Your task to perform on an android device: Open Chrome and go to the settings page Image 0: 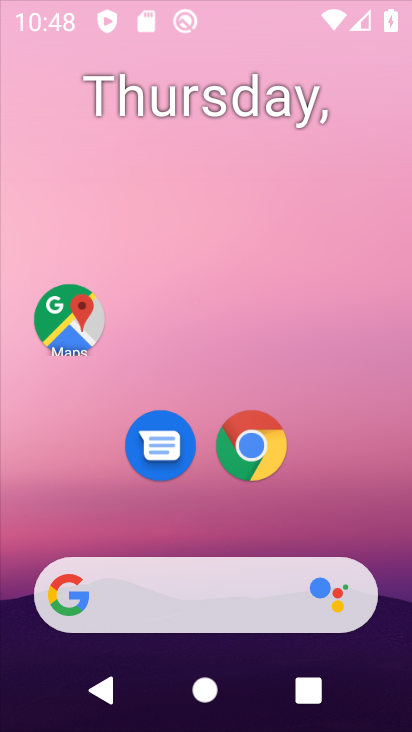
Step 0: press home button
Your task to perform on an android device: Open Chrome and go to the settings page Image 1: 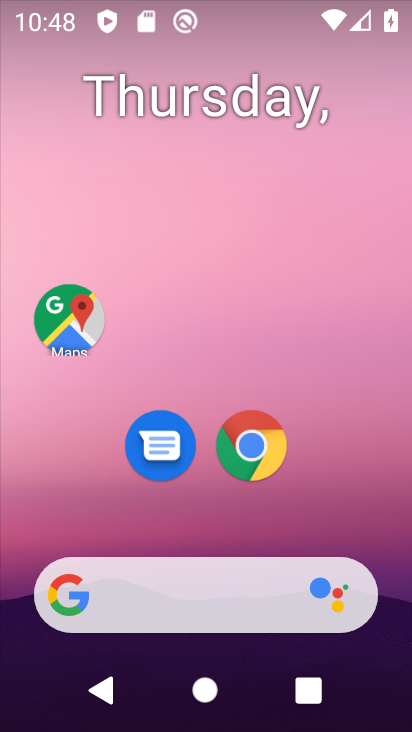
Step 1: drag from (169, 595) to (289, 188)
Your task to perform on an android device: Open Chrome and go to the settings page Image 2: 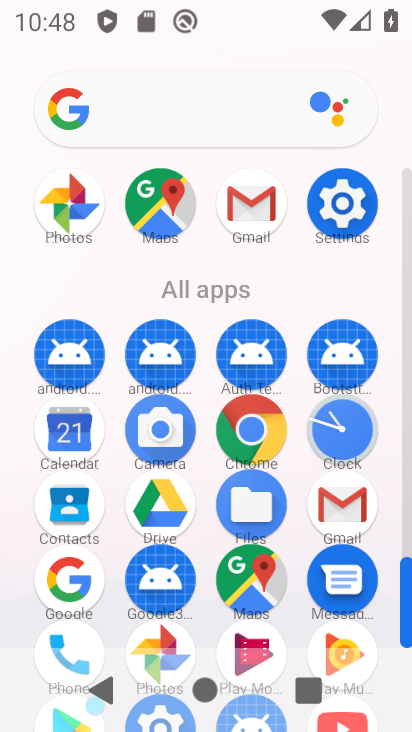
Step 2: click (260, 435)
Your task to perform on an android device: Open Chrome and go to the settings page Image 3: 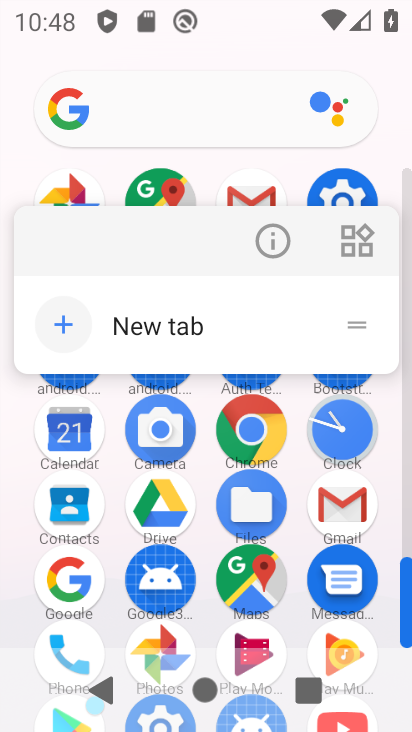
Step 3: click (254, 436)
Your task to perform on an android device: Open Chrome and go to the settings page Image 4: 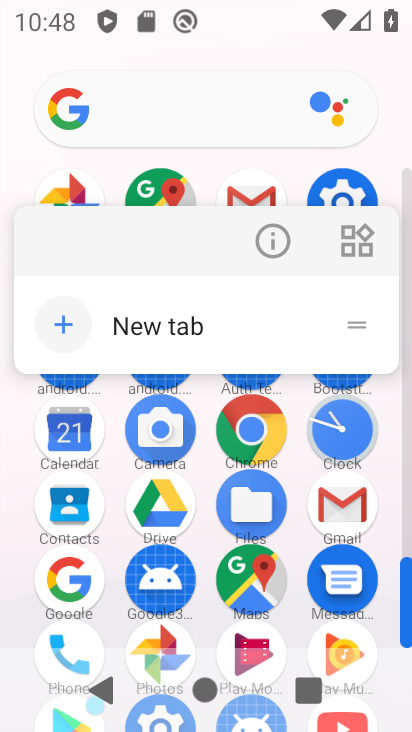
Step 4: click (252, 441)
Your task to perform on an android device: Open Chrome and go to the settings page Image 5: 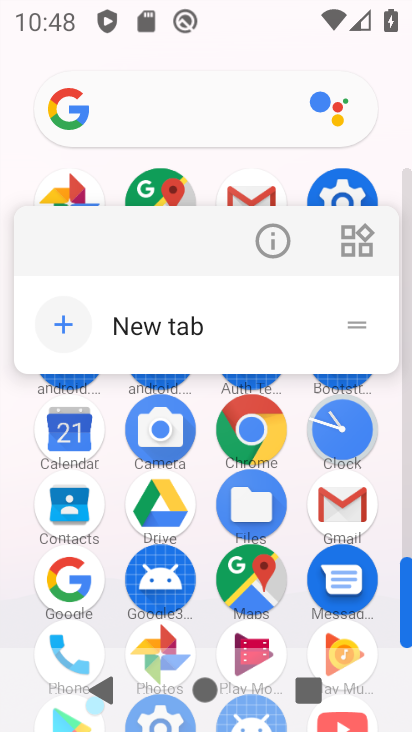
Step 5: click (251, 444)
Your task to perform on an android device: Open Chrome and go to the settings page Image 6: 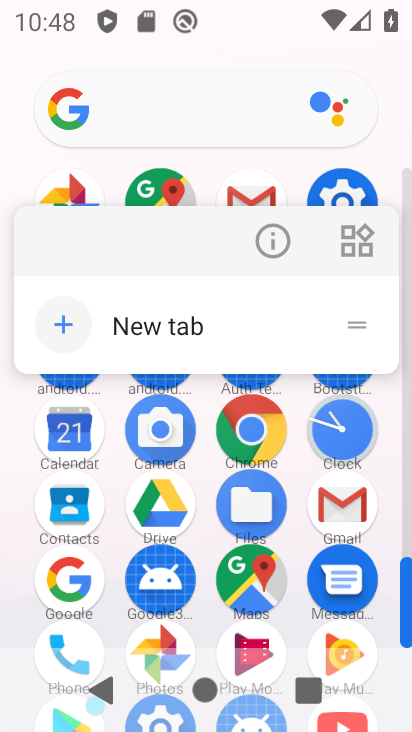
Step 6: click (248, 439)
Your task to perform on an android device: Open Chrome and go to the settings page Image 7: 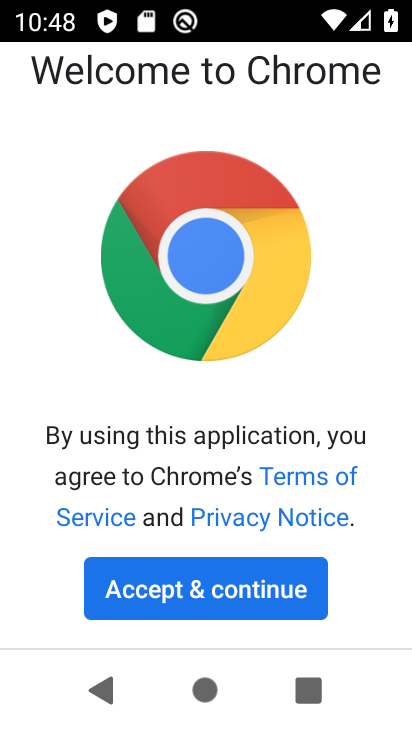
Step 7: click (222, 583)
Your task to perform on an android device: Open Chrome and go to the settings page Image 8: 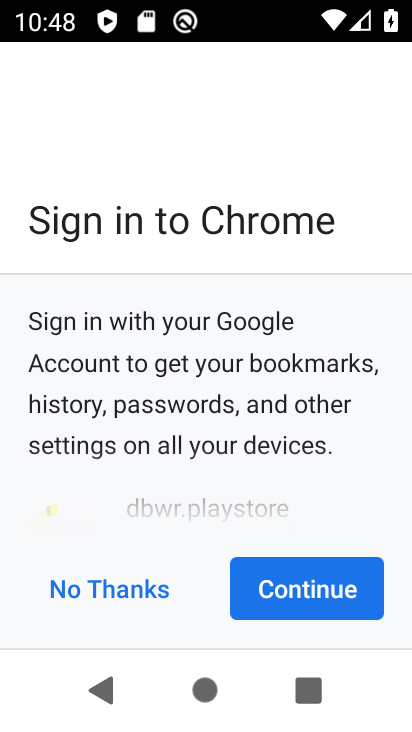
Step 8: click (286, 576)
Your task to perform on an android device: Open Chrome and go to the settings page Image 9: 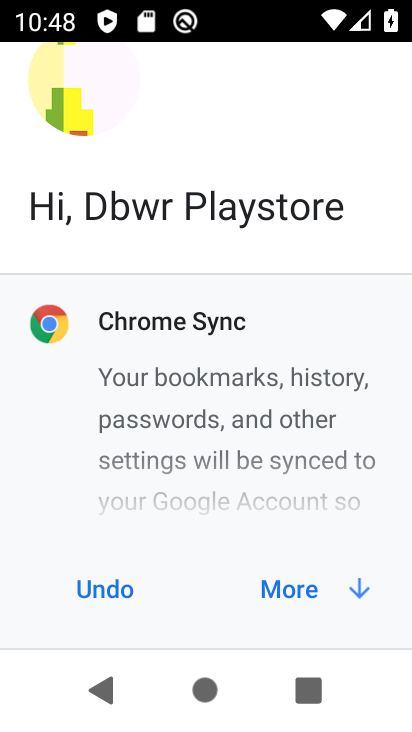
Step 9: click (289, 590)
Your task to perform on an android device: Open Chrome and go to the settings page Image 10: 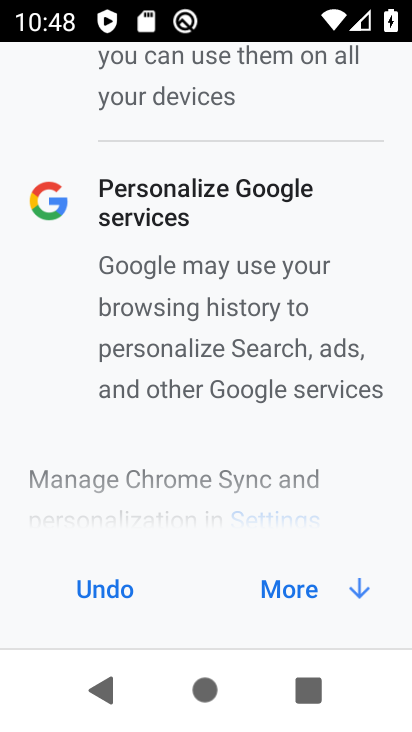
Step 10: click (301, 584)
Your task to perform on an android device: Open Chrome and go to the settings page Image 11: 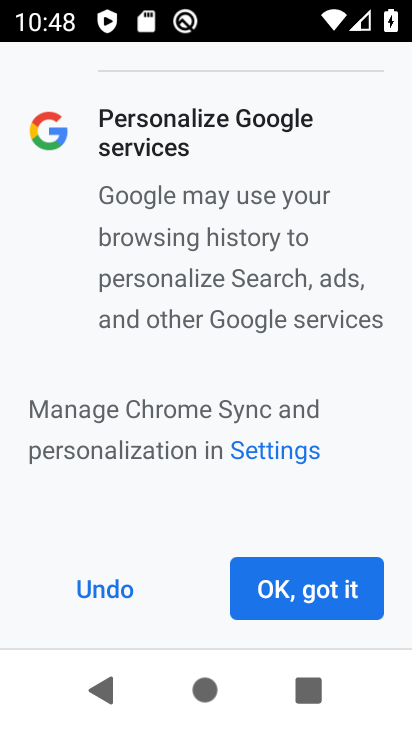
Step 11: click (316, 581)
Your task to perform on an android device: Open Chrome and go to the settings page Image 12: 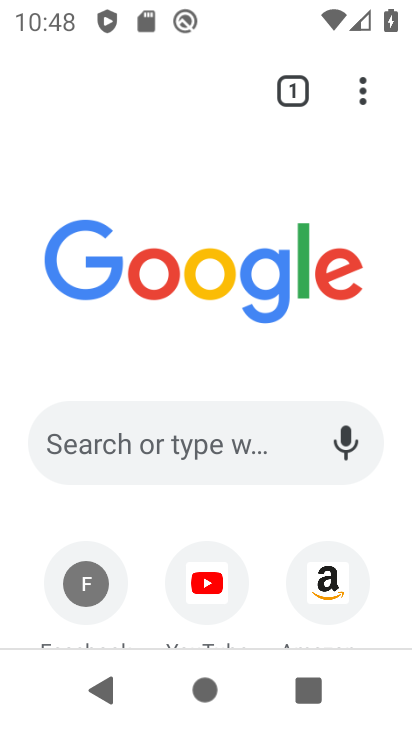
Step 12: click (354, 97)
Your task to perform on an android device: Open Chrome and go to the settings page Image 13: 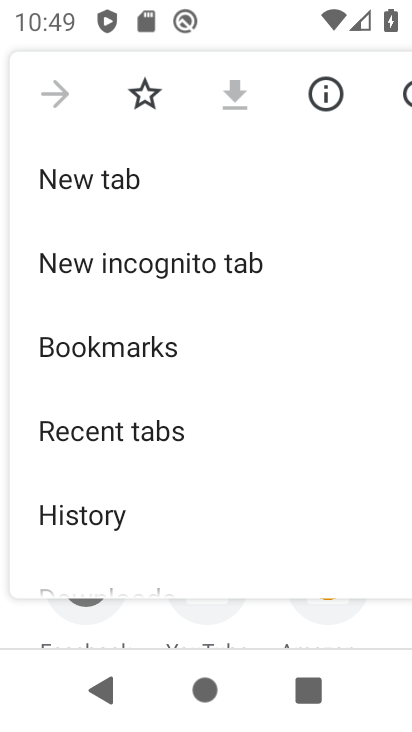
Step 13: drag from (168, 550) to (302, 157)
Your task to perform on an android device: Open Chrome and go to the settings page Image 14: 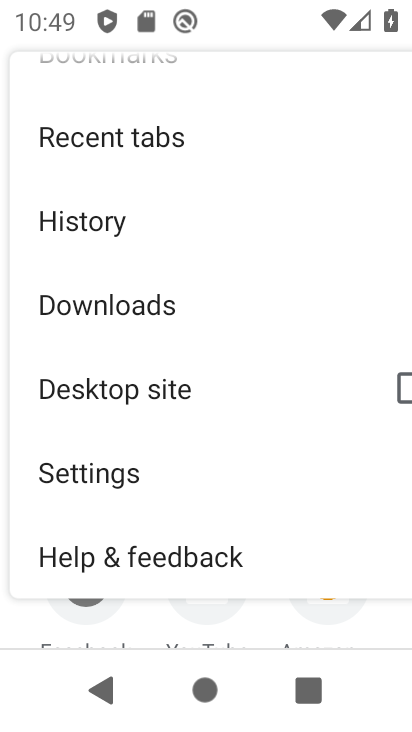
Step 14: click (83, 470)
Your task to perform on an android device: Open Chrome and go to the settings page Image 15: 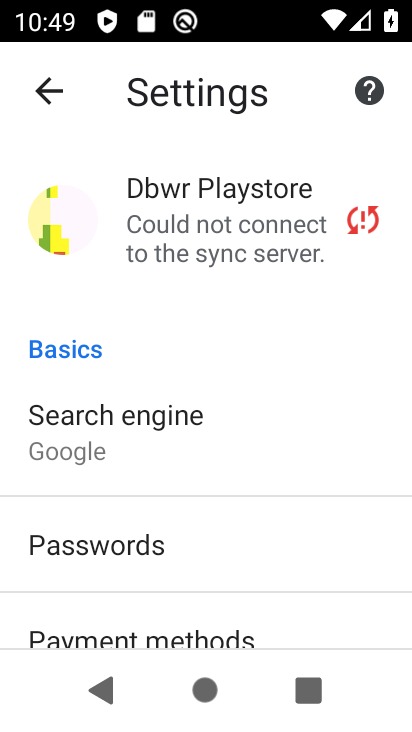
Step 15: task complete